Your task to perform on an android device: Clear the cart on ebay. Add "logitech g pro" to the cart on ebay Image 0: 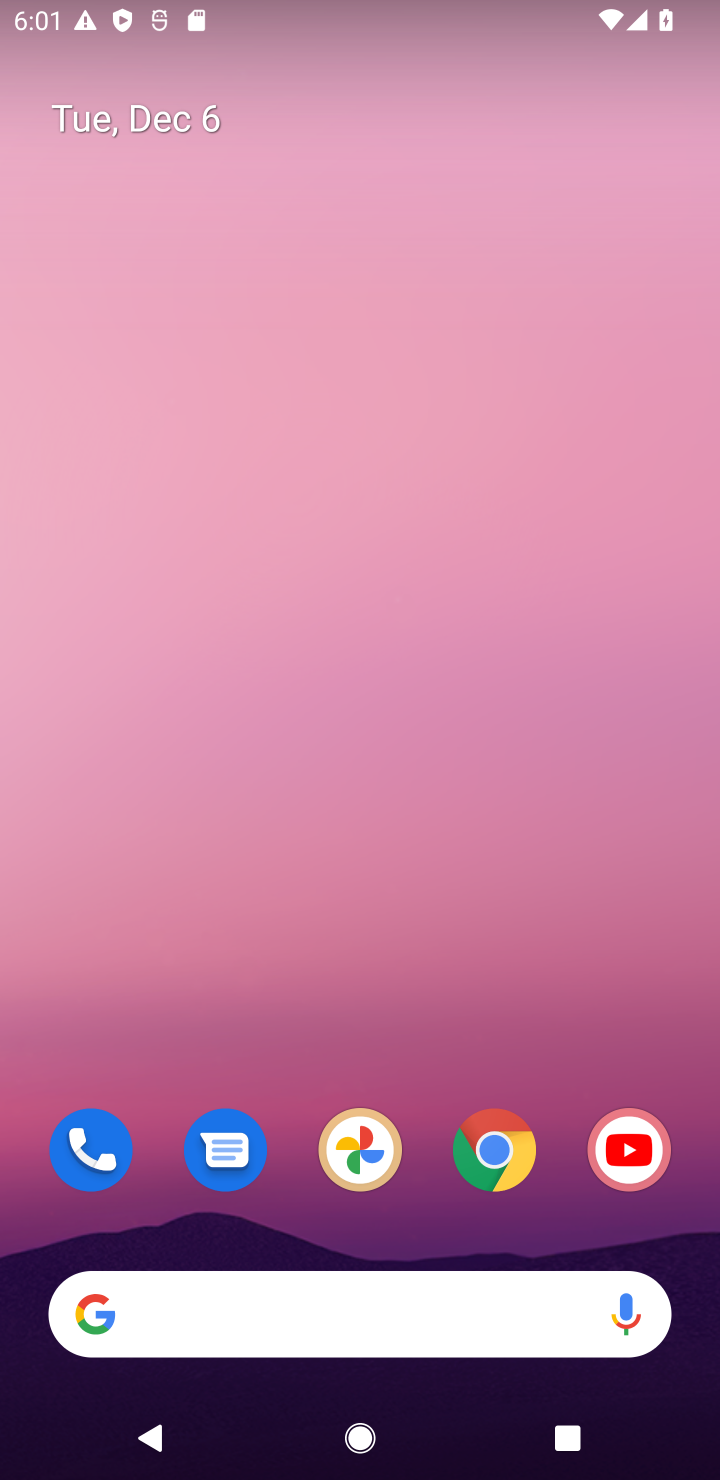
Step 0: click (489, 1158)
Your task to perform on an android device: Clear the cart on ebay. Add "logitech g pro" to the cart on ebay Image 1: 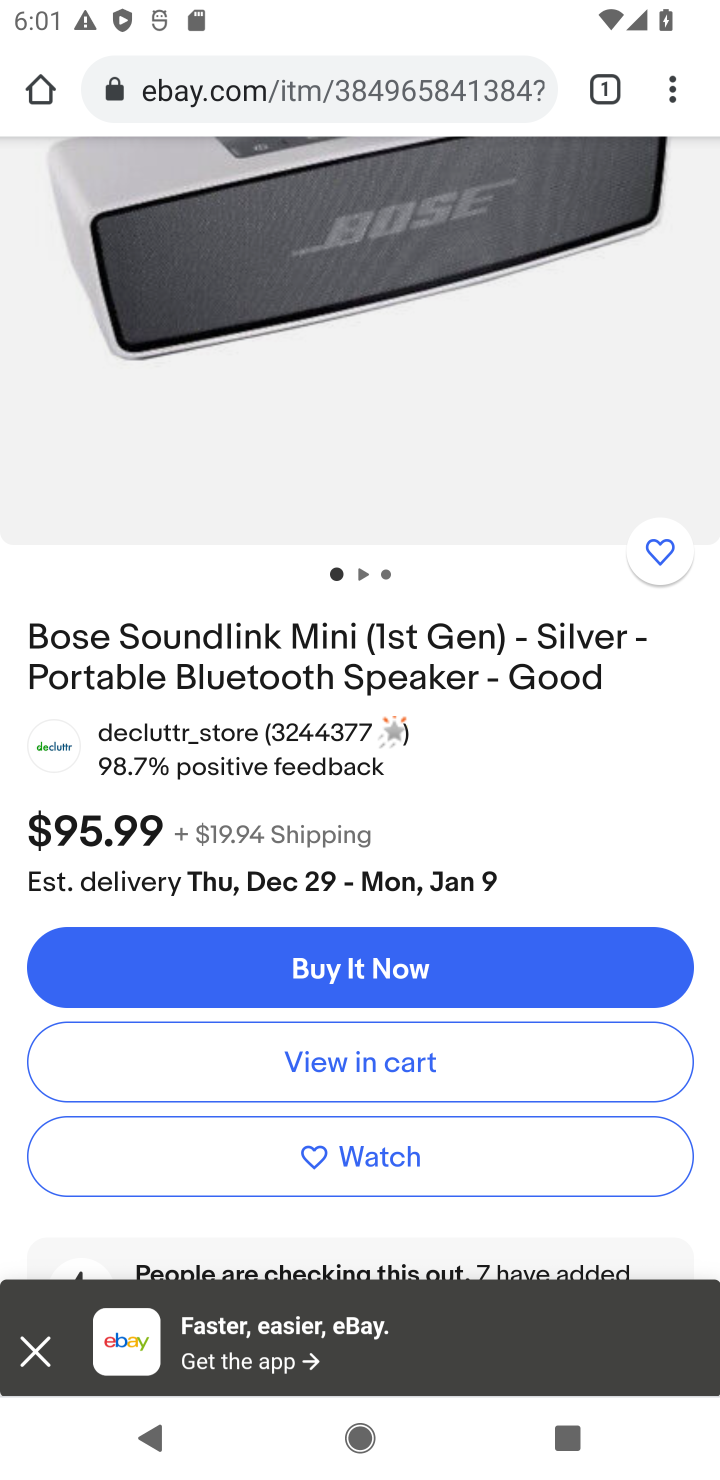
Step 1: drag from (364, 504) to (354, 1084)
Your task to perform on an android device: Clear the cart on ebay. Add "logitech g pro" to the cart on ebay Image 2: 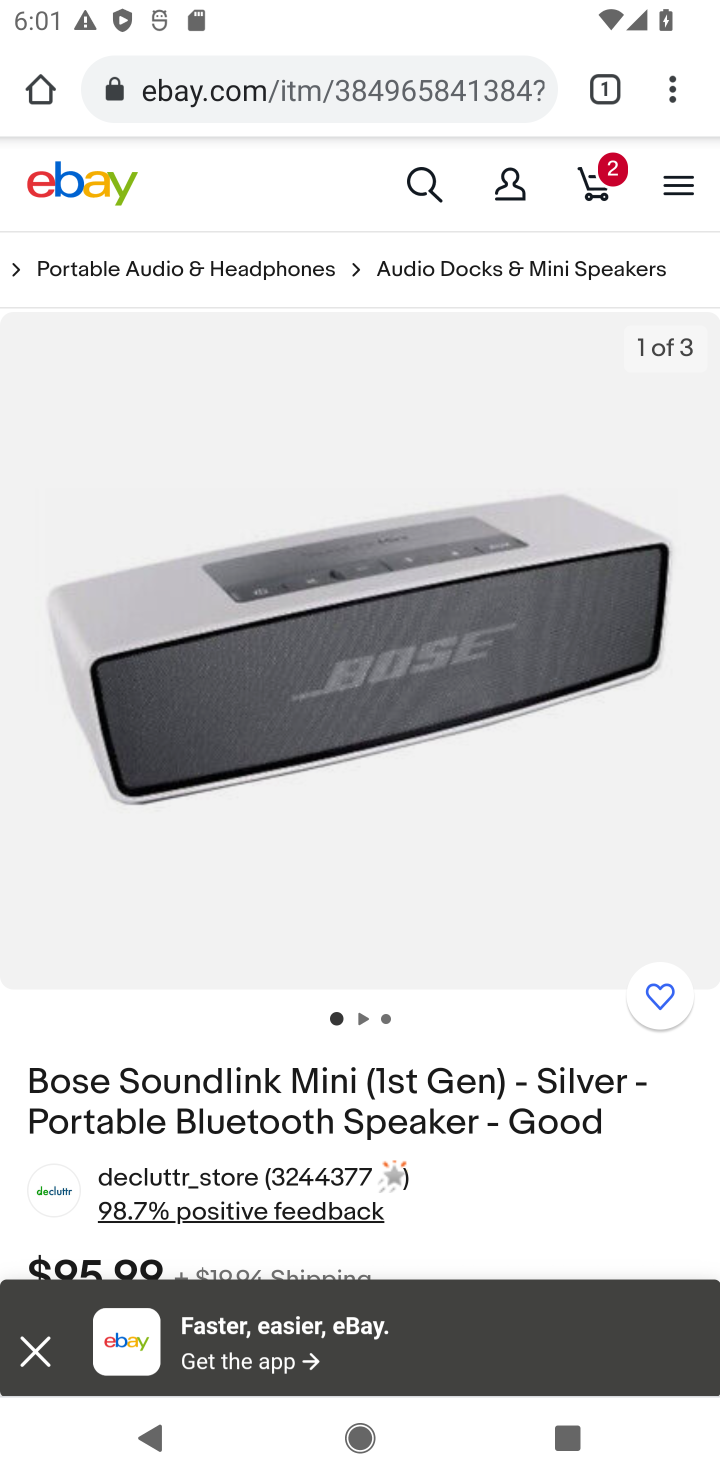
Step 2: click (416, 183)
Your task to perform on an android device: Clear the cart on ebay. Add "logitech g pro" to the cart on ebay Image 3: 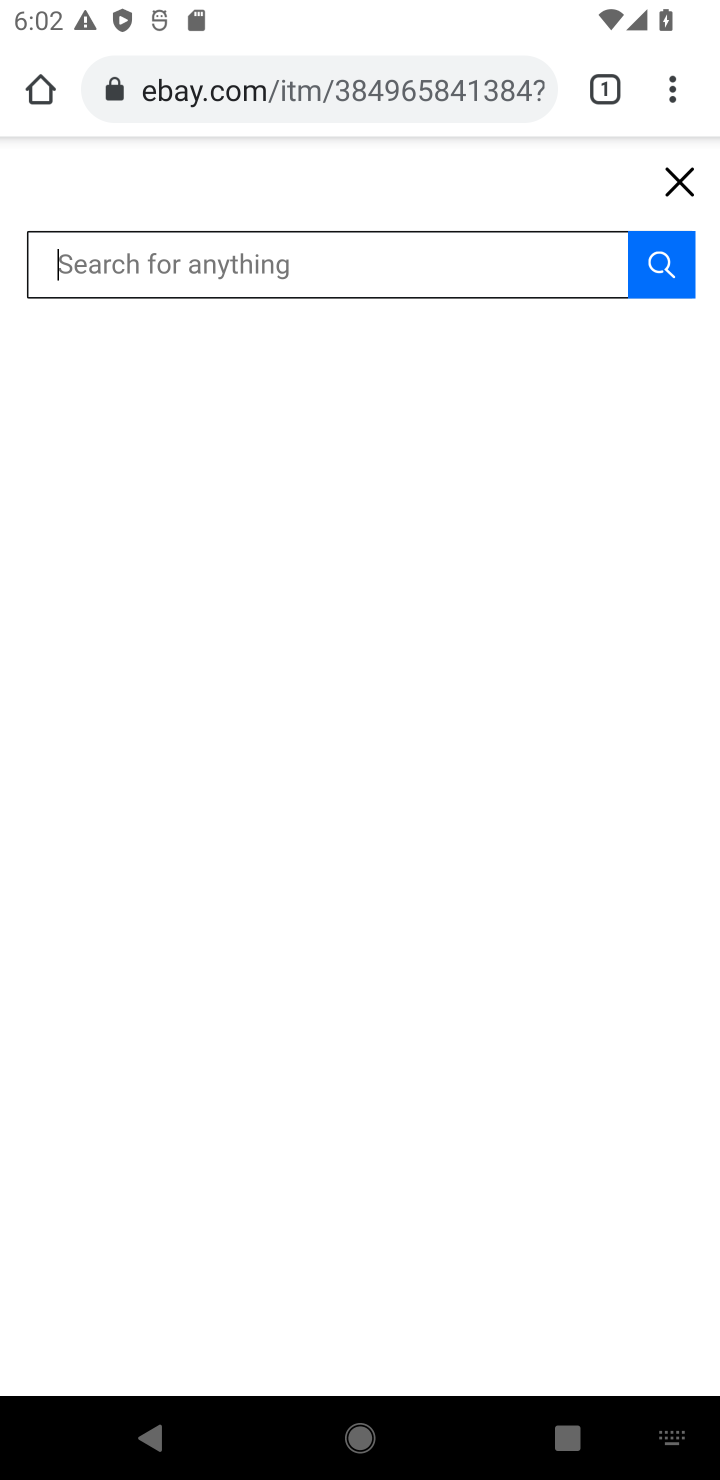
Step 3: type "logitech pro"
Your task to perform on an android device: Clear the cart on ebay. Add "logitech g pro" to the cart on ebay Image 4: 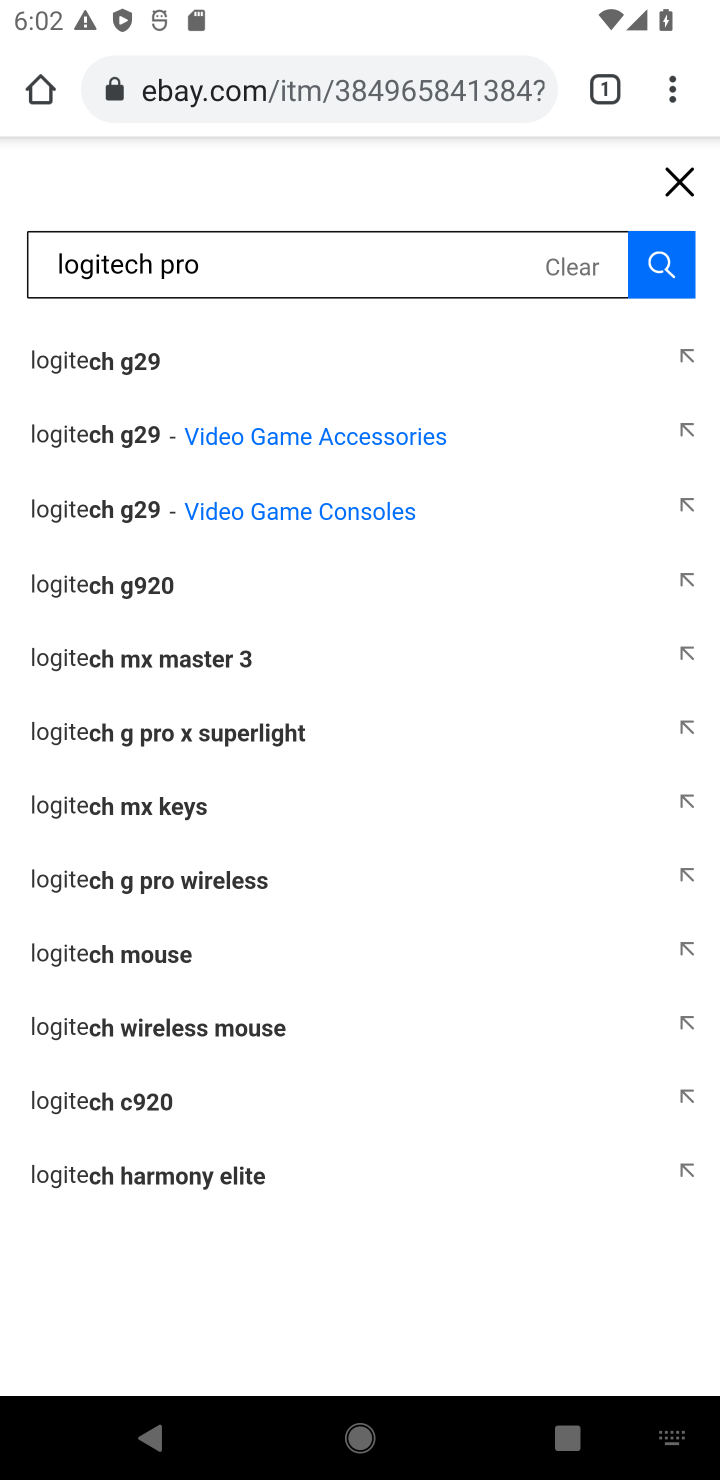
Step 4: click (159, 261)
Your task to perform on an android device: Clear the cart on ebay. Add "logitech g pro" to the cart on ebay Image 5: 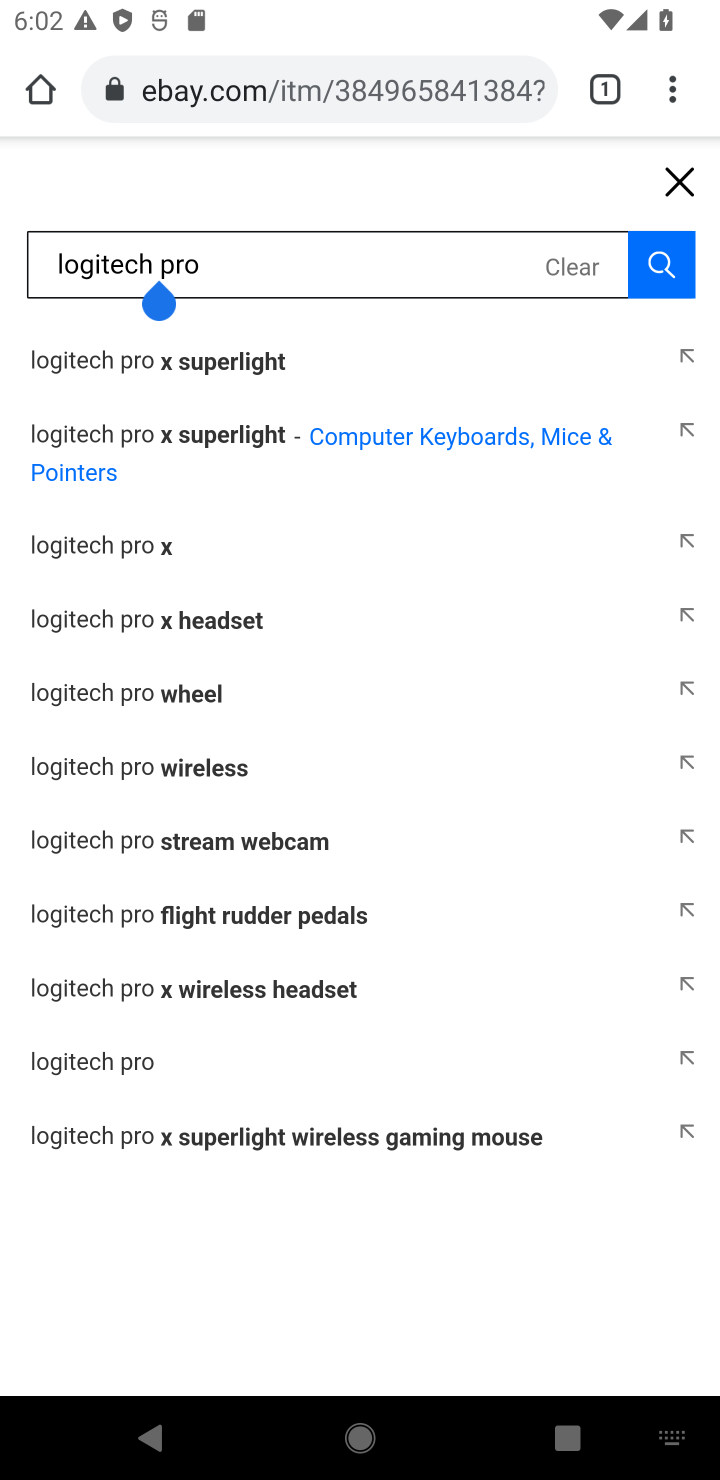
Step 5: type "g "
Your task to perform on an android device: Clear the cart on ebay. Add "logitech g pro" to the cart on ebay Image 6: 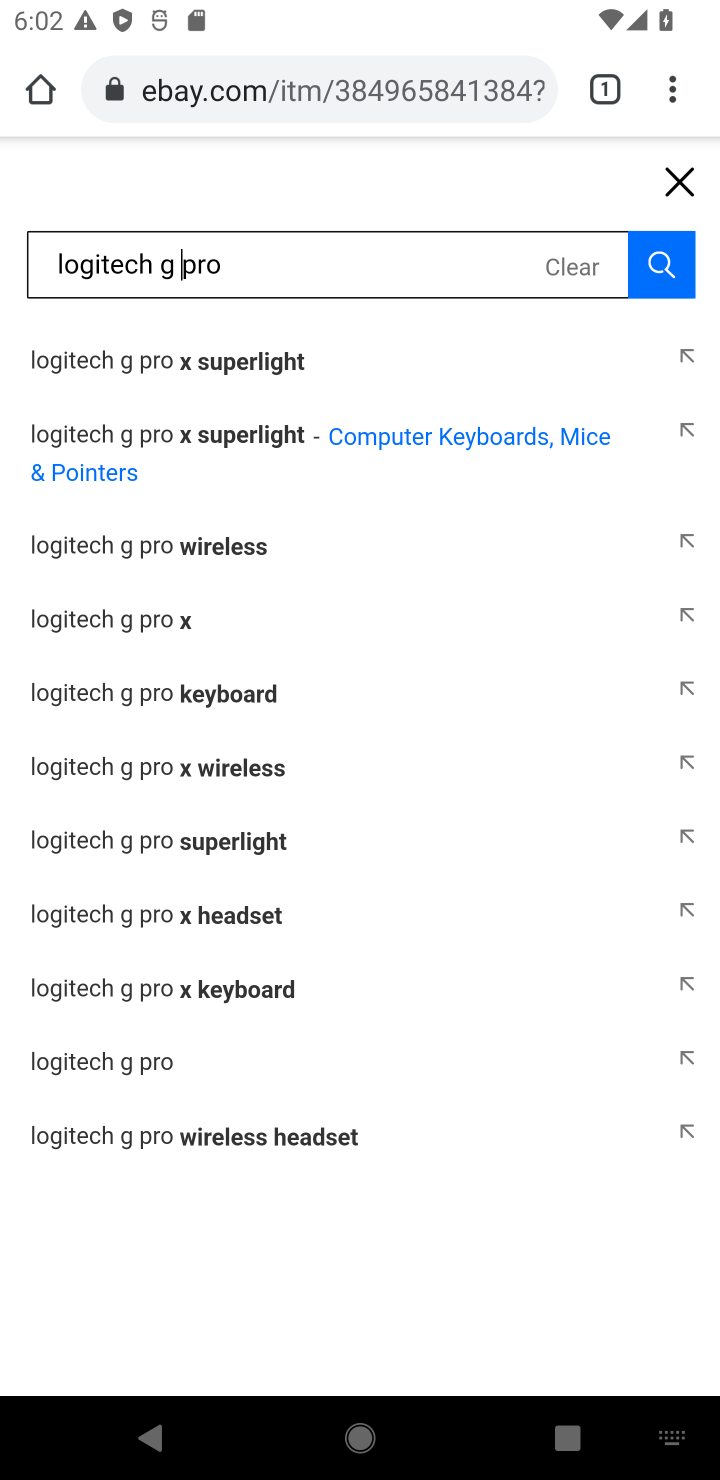
Step 6: click (119, 1053)
Your task to perform on an android device: Clear the cart on ebay. Add "logitech g pro" to the cart on ebay Image 7: 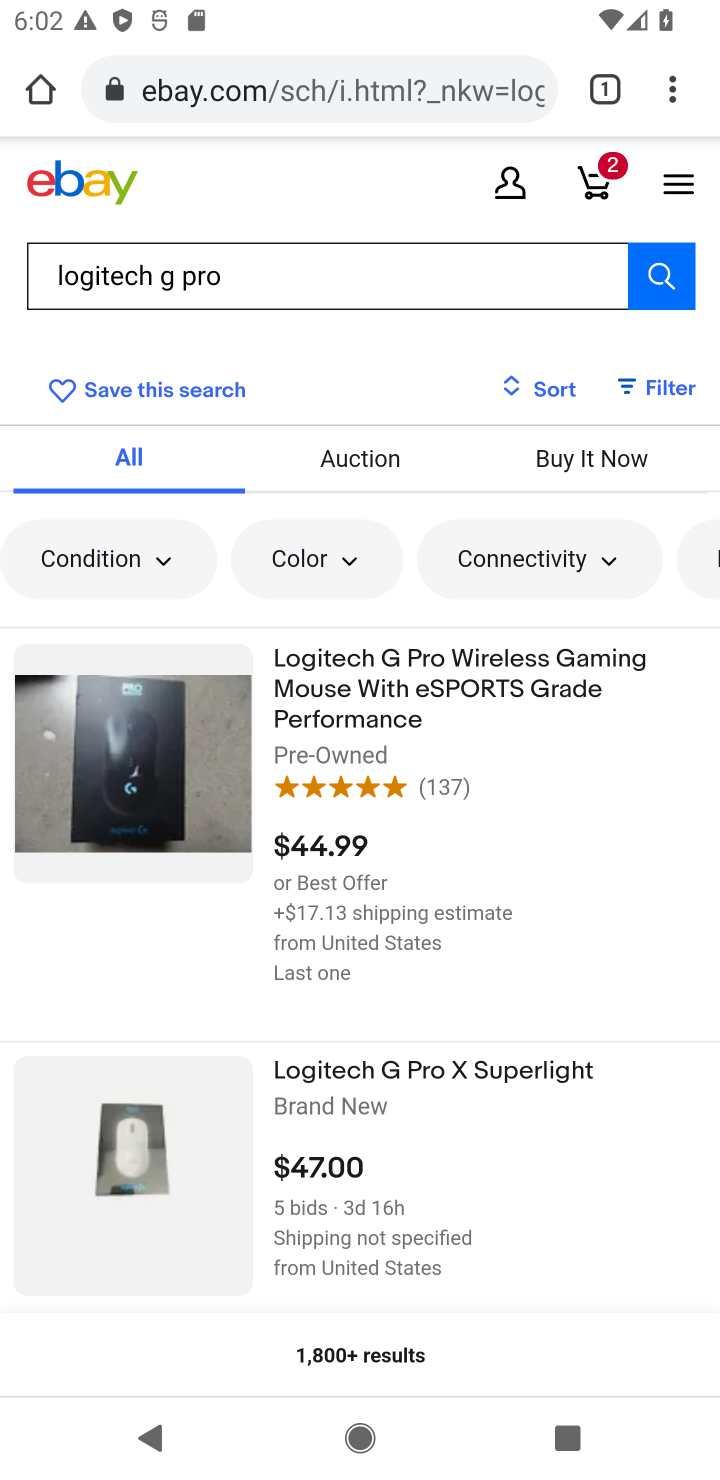
Step 7: click (412, 715)
Your task to perform on an android device: Clear the cart on ebay. Add "logitech g pro" to the cart on ebay Image 8: 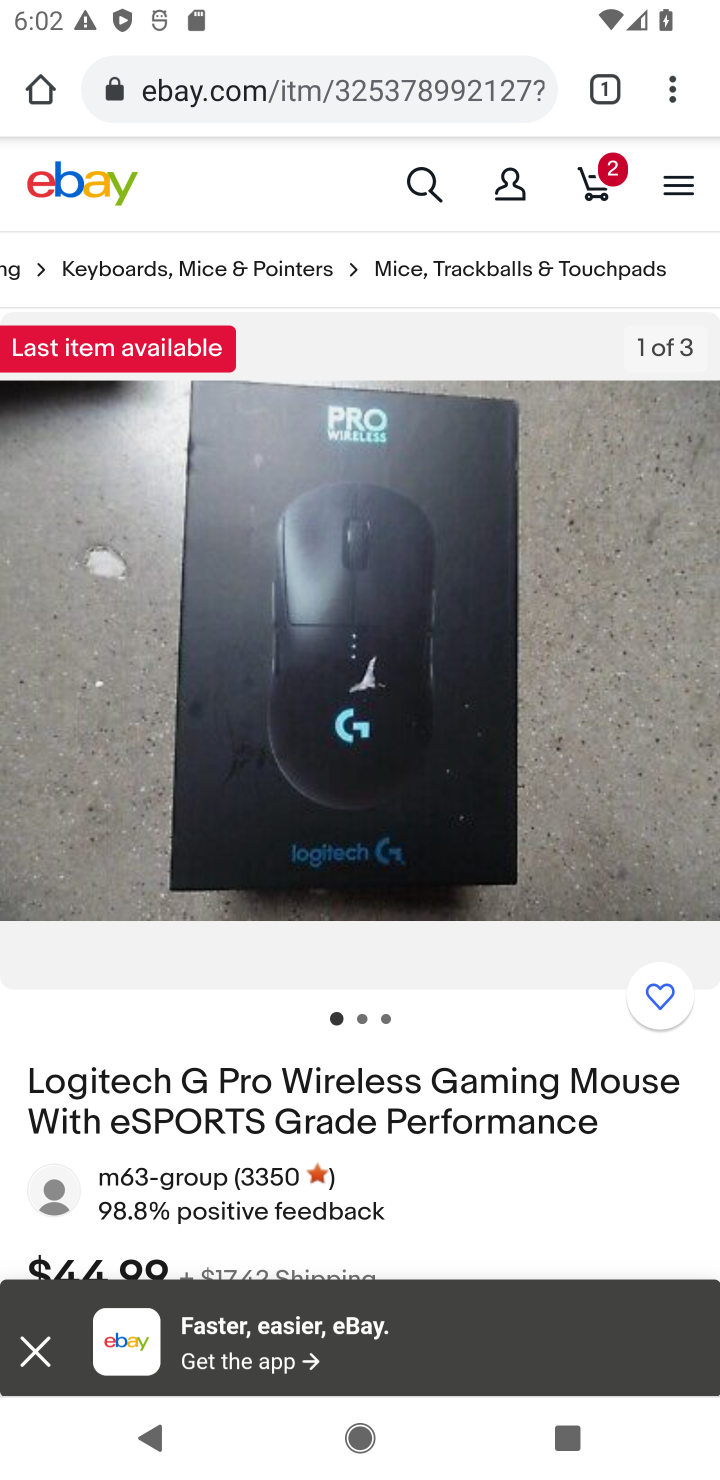
Step 8: drag from (333, 1153) to (273, 658)
Your task to perform on an android device: Clear the cart on ebay. Add "logitech g pro" to the cart on ebay Image 9: 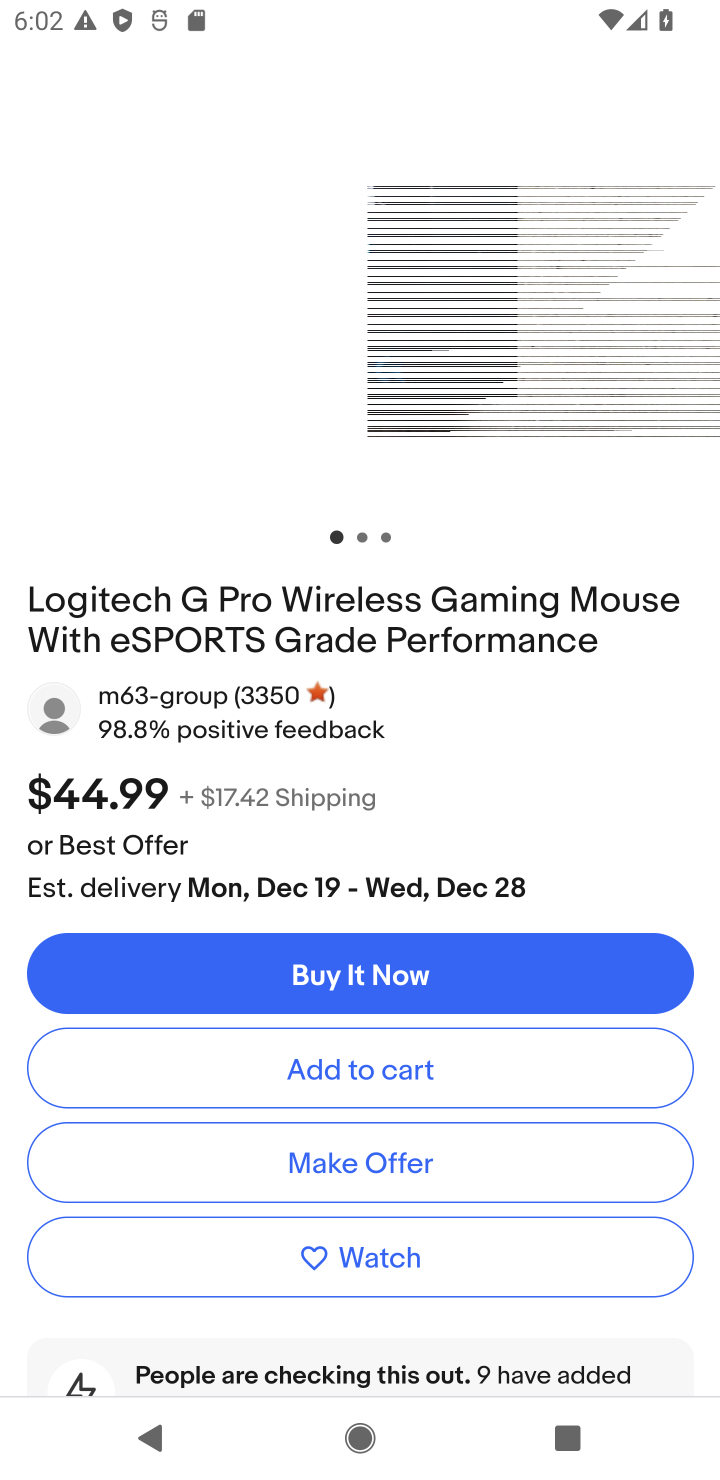
Step 9: click (339, 1074)
Your task to perform on an android device: Clear the cart on ebay. Add "logitech g pro" to the cart on ebay Image 10: 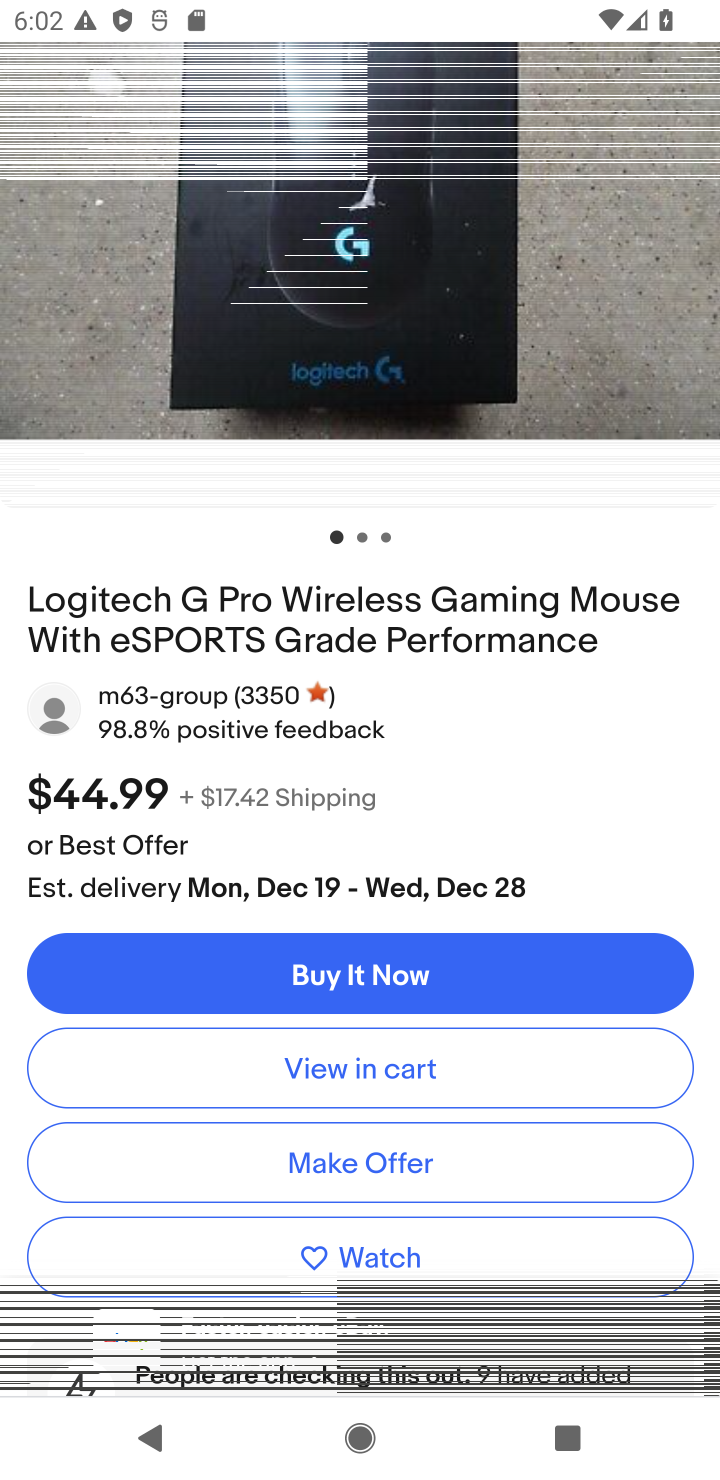
Step 10: task complete